Your task to perform on an android device: snooze an email in the gmail app Image 0: 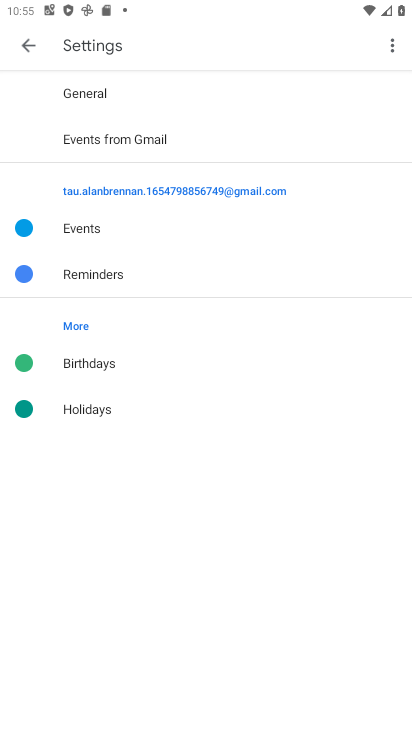
Step 0: press home button
Your task to perform on an android device: snooze an email in the gmail app Image 1: 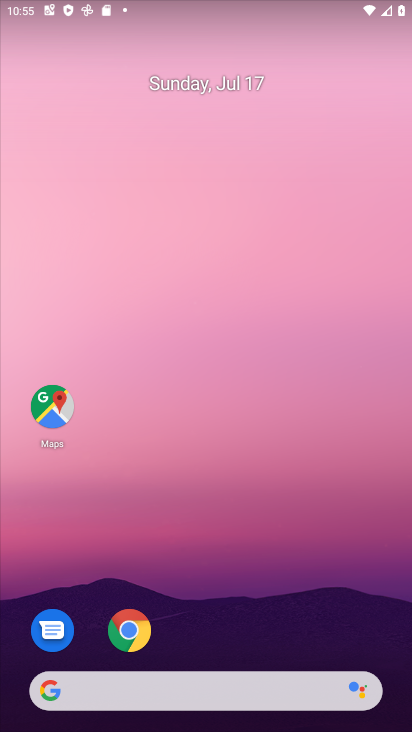
Step 1: drag from (237, 616) to (248, 134)
Your task to perform on an android device: snooze an email in the gmail app Image 2: 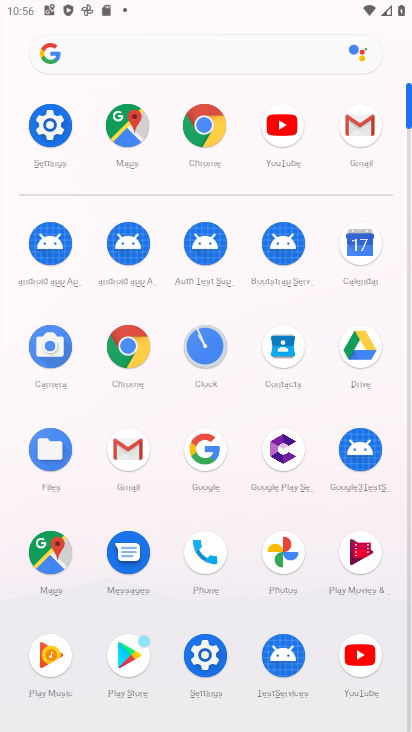
Step 2: click (141, 455)
Your task to perform on an android device: snooze an email in the gmail app Image 3: 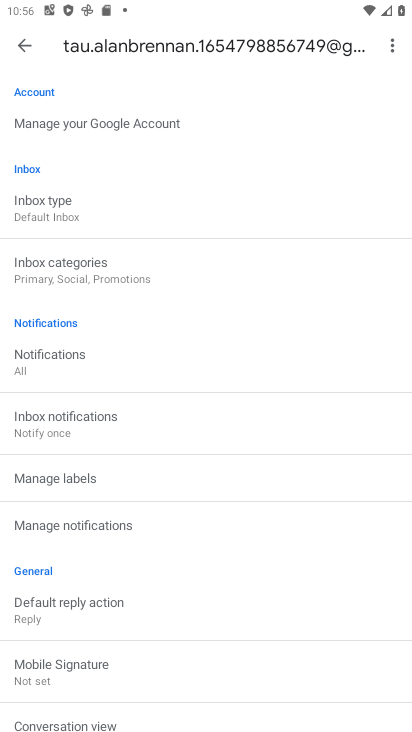
Step 3: task complete